Your task to perform on an android device: turn off airplane mode Image 0: 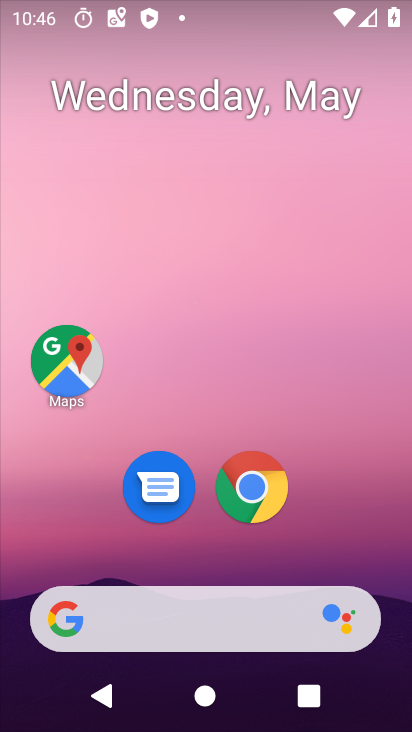
Step 0: drag from (211, 508) to (255, 108)
Your task to perform on an android device: turn off airplane mode Image 1: 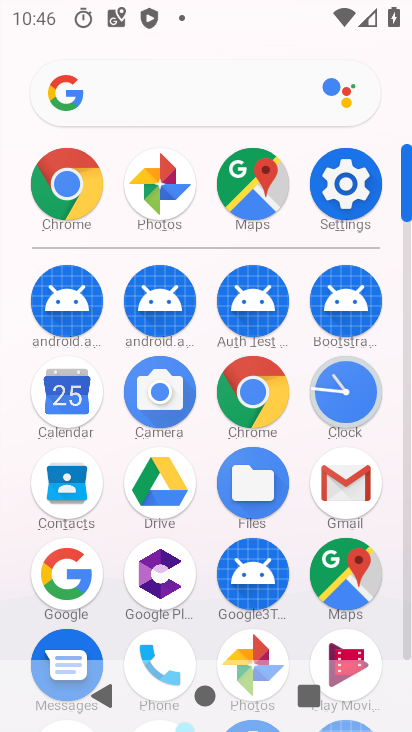
Step 1: click (347, 190)
Your task to perform on an android device: turn off airplane mode Image 2: 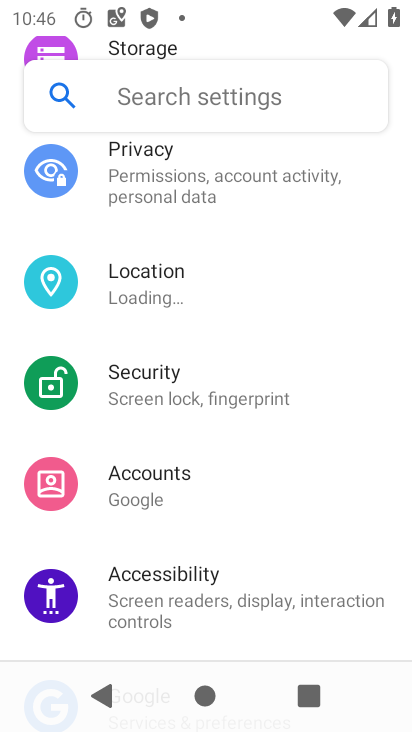
Step 2: drag from (278, 273) to (295, 725)
Your task to perform on an android device: turn off airplane mode Image 3: 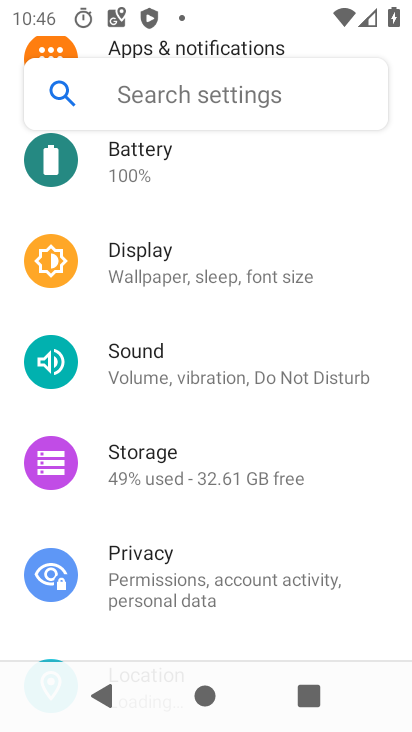
Step 3: drag from (180, 266) to (254, 707)
Your task to perform on an android device: turn off airplane mode Image 4: 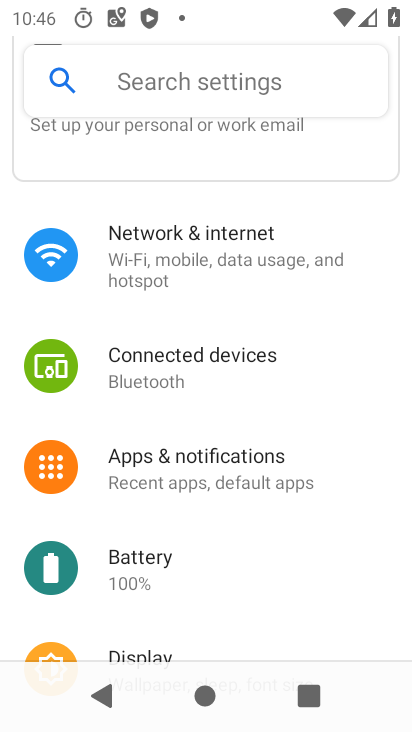
Step 4: click (283, 257)
Your task to perform on an android device: turn off airplane mode Image 5: 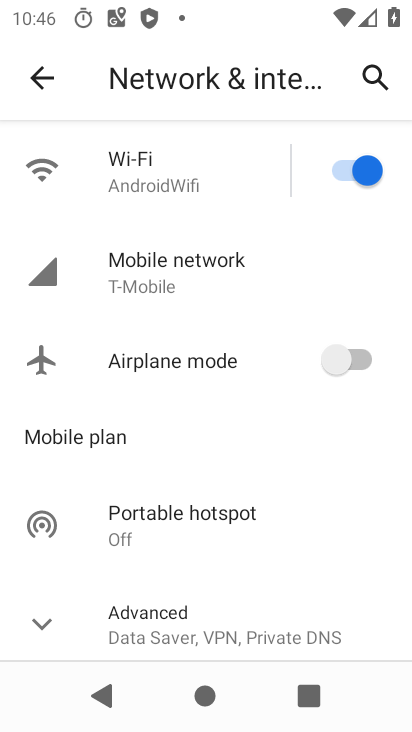
Step 5: task complete